Your task to perform on an android device: turn on wifi Image 0: 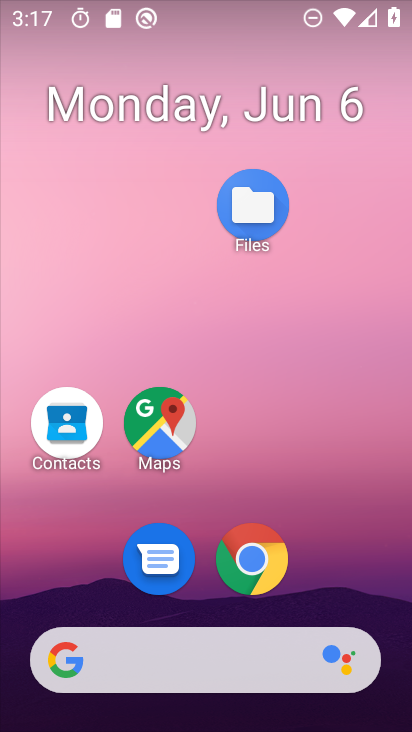
Step 0: drag from (179, 588) to (228, 139)
Your task to perform on an android device: turn on wifi Image 1: 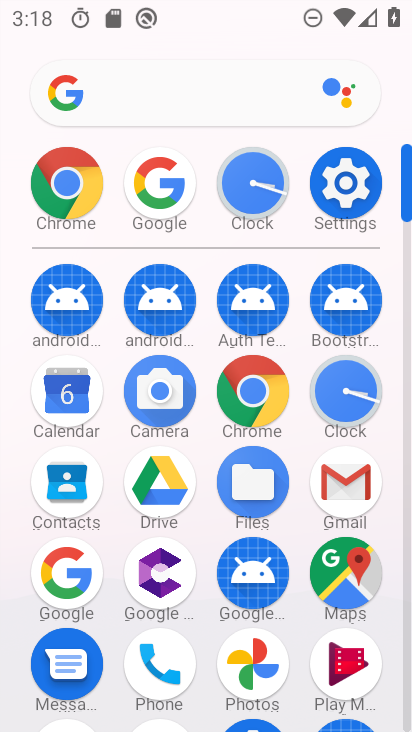
Step 1: click (352, 217)
Your task to perform on an android device: turn on wifi Image 2: 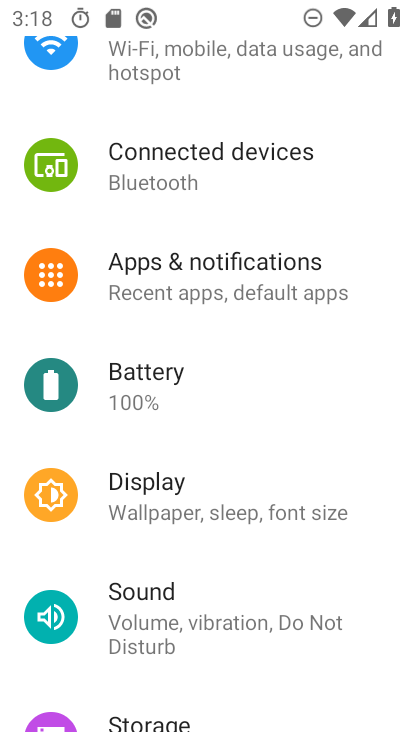
Step 2: drag from (216, 306) to (323, 730)
Your task to perform on an android device: turn on wifi Image 3: 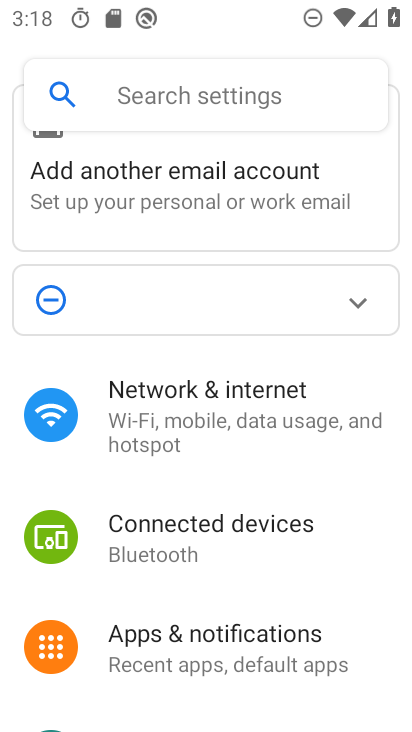
Step 3: click (264, 428)
Your task to perform on an android device: turn on wifi Image 4: 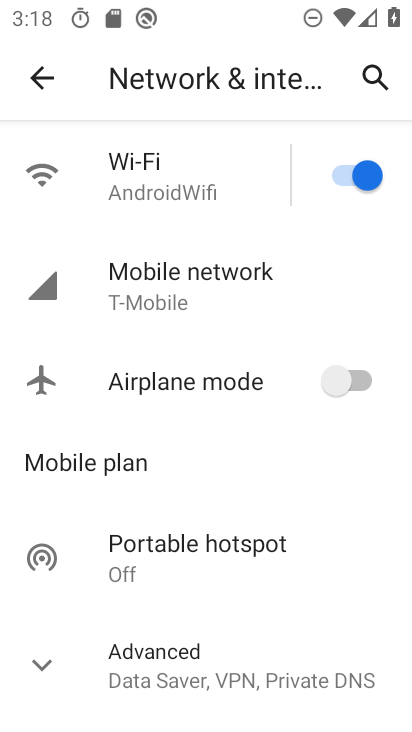
Step 4: task complete